Your task to perform on an android device: Open Wikipedia Image 0: 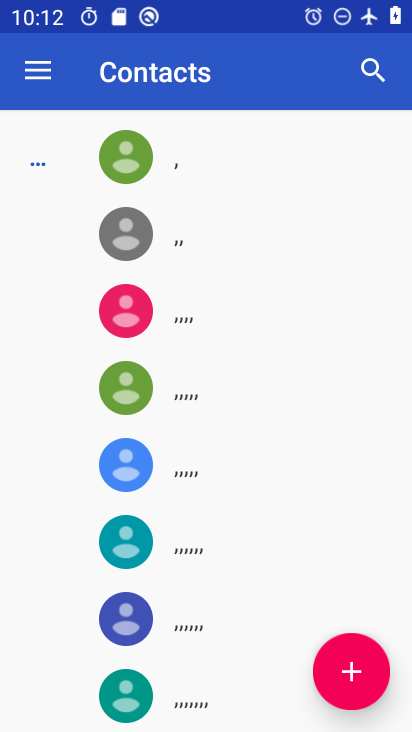
Step 0: press home button
Your task to perform on an android device: Open Wikipedia Image 1: 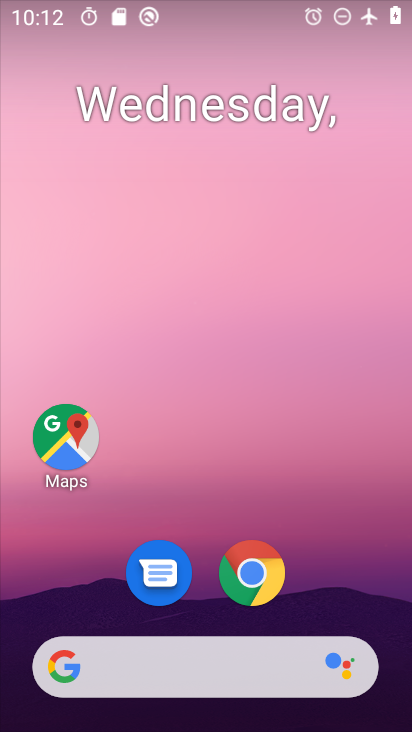
Step 1: drag from (276, 635) to (296, 234)
Your task to perform on an android device: Open Wikipedia Image 2: 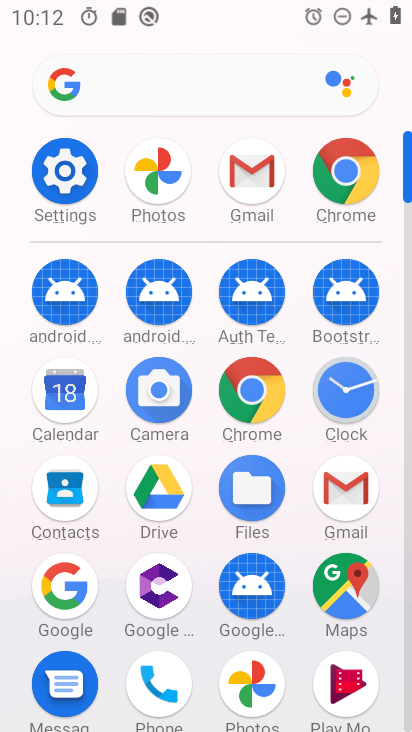
Step 2: drag from (286, 487) to (311, 274)
Your task to perform on an android device: Open Wikipedia Image 3: 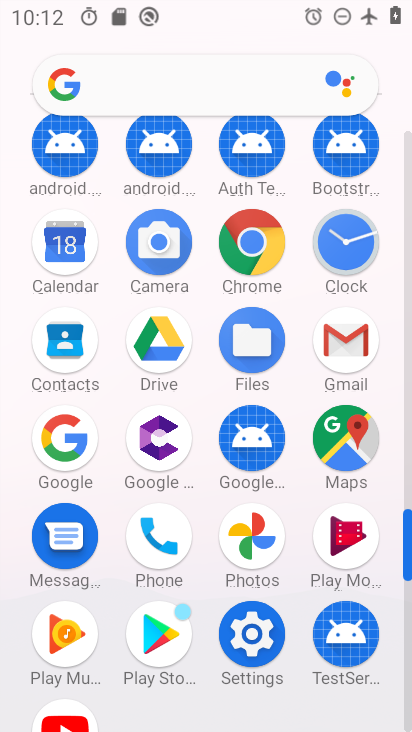
Step 3: drag from (323, 474) to (353, 231)
Your task to perform on an android device: Open Wikipedia Image 4: 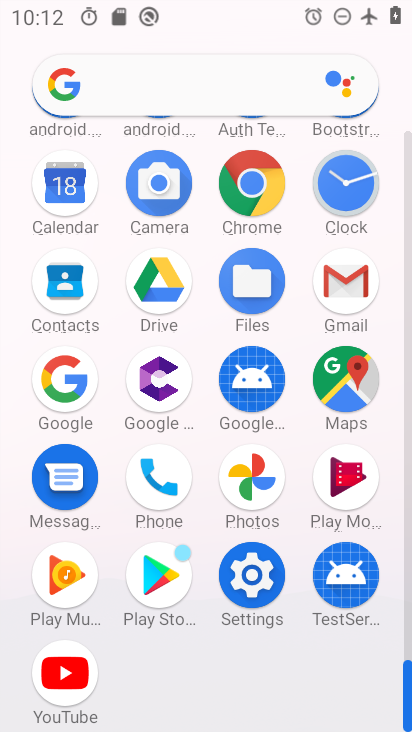
Step 4: click (258, 608)
Your task to perform on an android device: Open Wikipedia Image 5: 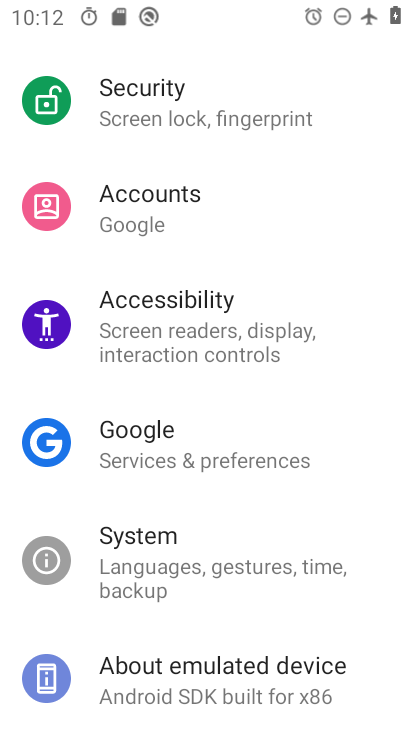
Step 5: click (268, 575)
Your task to perform on an android device: Open Wikipedia Image 6: 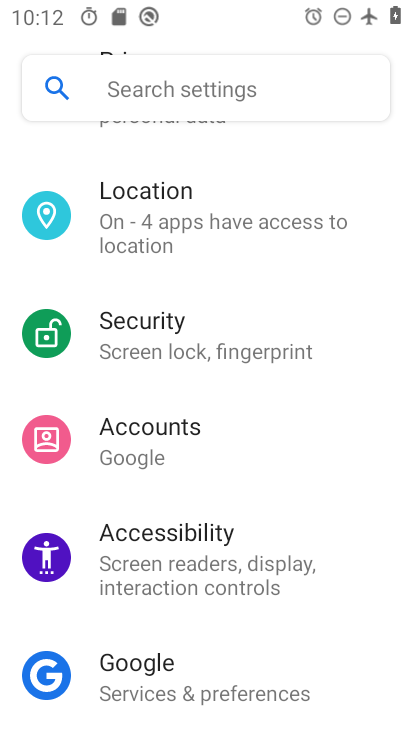
Step 6: drag from (251, 221) to (274, 394)
Your task to perform on an android device: Open Wikipedia Image 7: 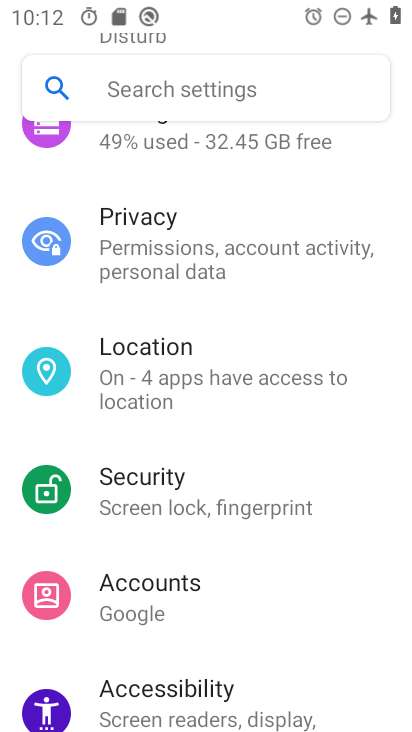
Step 7: drag from (318, 203) to (238, 632)
Your task to perform on an android device: Open Wikipedia Image 8: 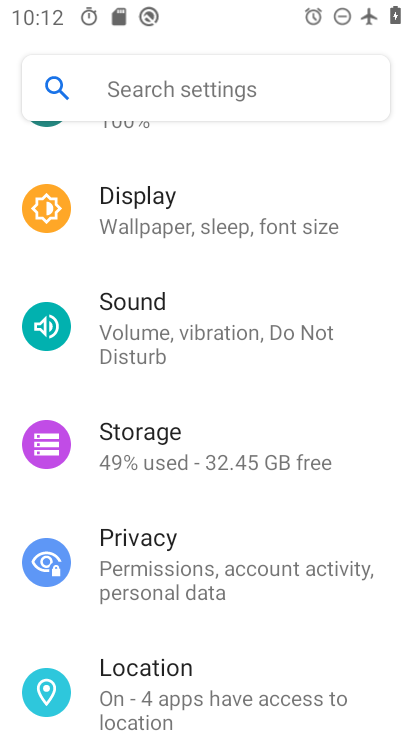
Step 8: drag from (281, 341) to (261, 668)
Your task to perform on an android device: Open Wikipedia Image 9: 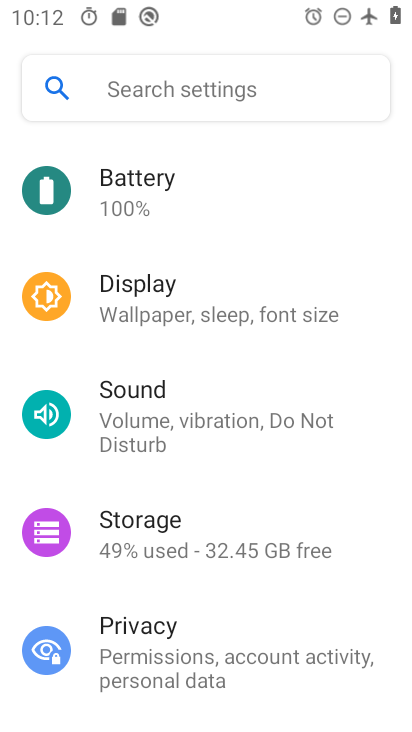
Step 9: drag from (280, 323) to (252, 515)
Your task to perform on an android device: Open Wikipedia Image 10: 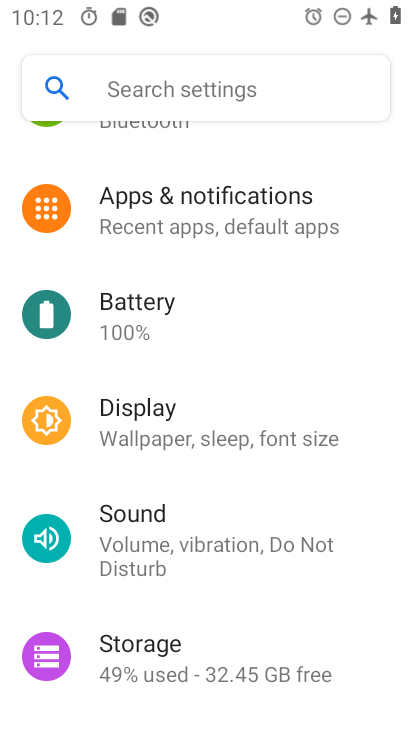
Step 10: drag from (257, 264) to (232, 540)
Your task to perform on an android device: Open Wikipedia Image 11: 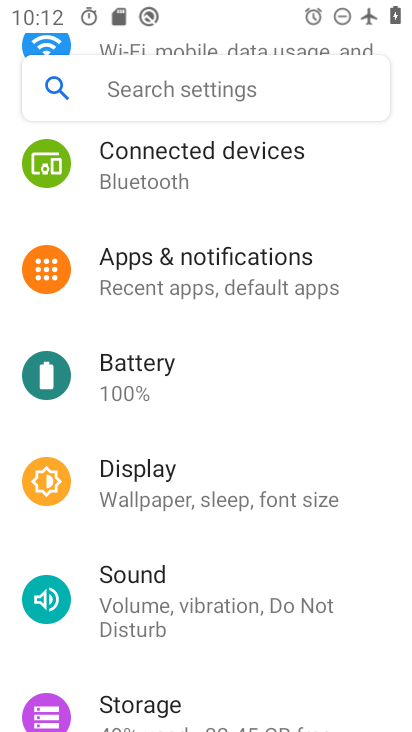
Step 11: drag from (266, 205) to (266, 552)
Your task to perform on an android device: Open Wikipedia Image 12: 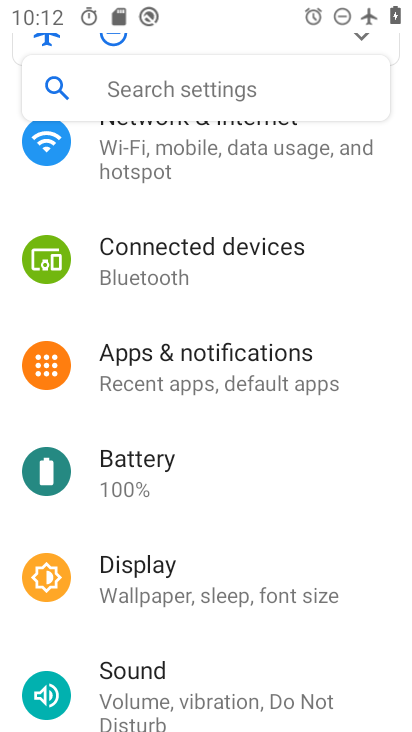
Step 12: drag from (292, 251) to (274, 511)
Your task to perform on an android device: Open Wikipedia Image 13: 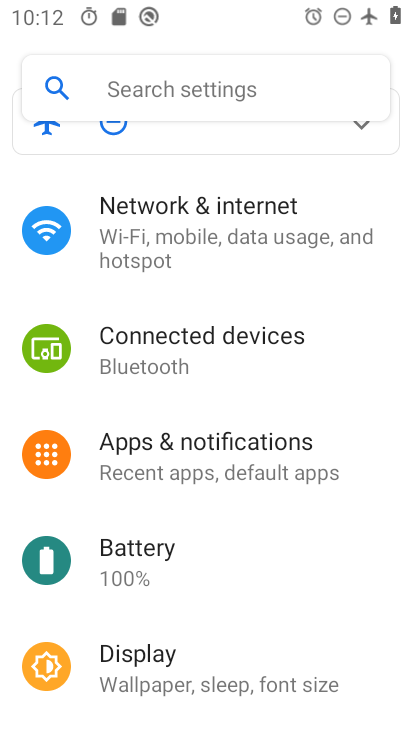
Step 13: click (301, 221)
Your task to perform on an android device: Open Wikipedia Image 14: 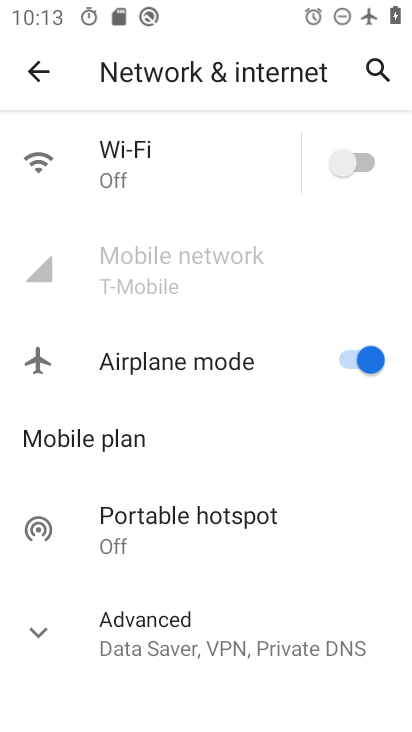
Step 14: click (187, 147)
Your task to perform on an android device: Open Wikipedia Image 15: 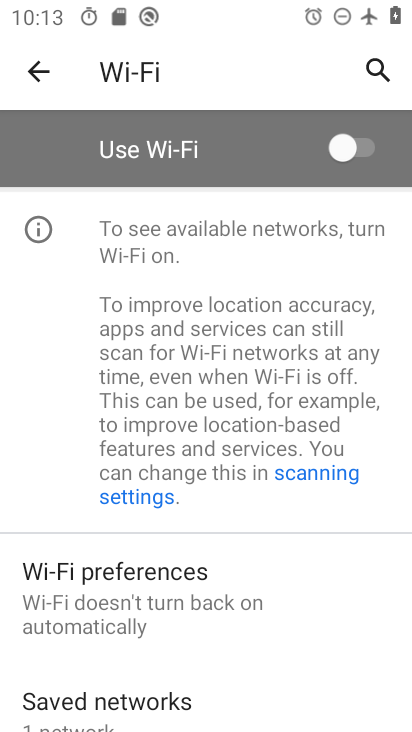
Step 15: task complete